Your task to perform on an android device: visit the assistant section in the google photos Image 0: 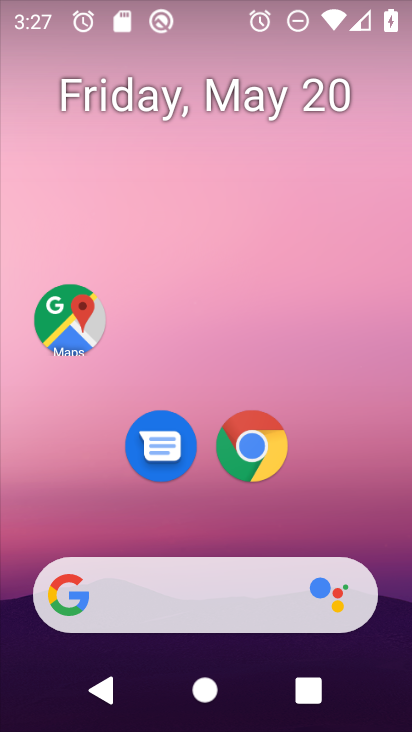
Step 0: drag from (381, 507) to (390, 5)
Your task to perform on an android device: visit the assistant section in the google photos Image 1: 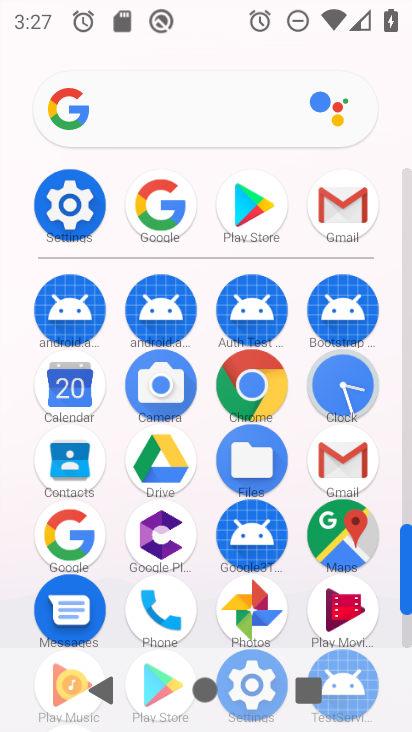
Step 1: click (253, 616)
Your task to perform on an android device: visit the assistant section in the google photos Image 2: 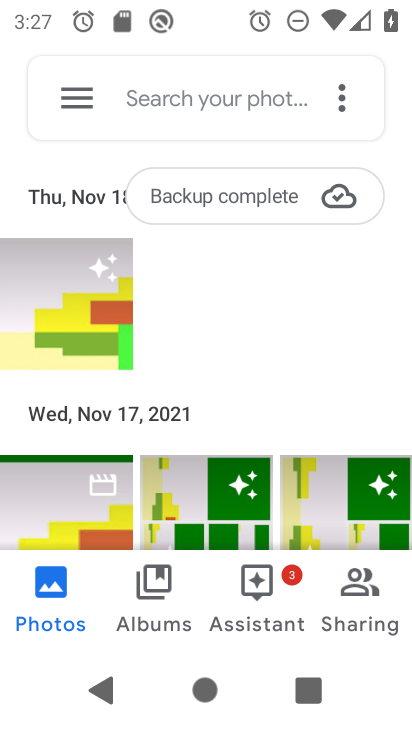
Step 2: click (253, 605)
Your task to perform on an android device: visit the assistant section in the google photos Image 3: 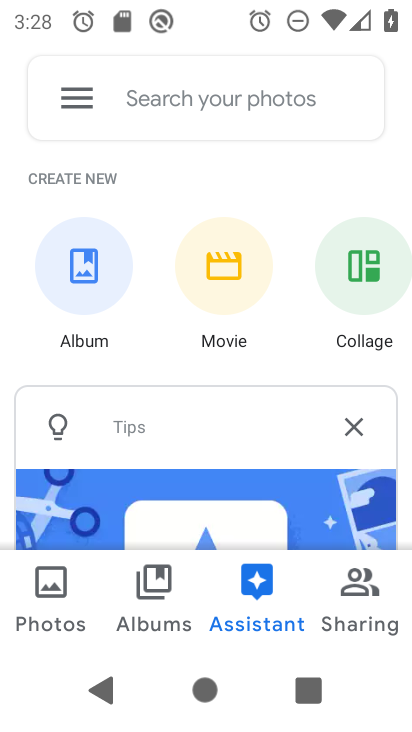
Step 3: task complete